Your task to perform on an android device: allow cookies in the chrome app Image 0: 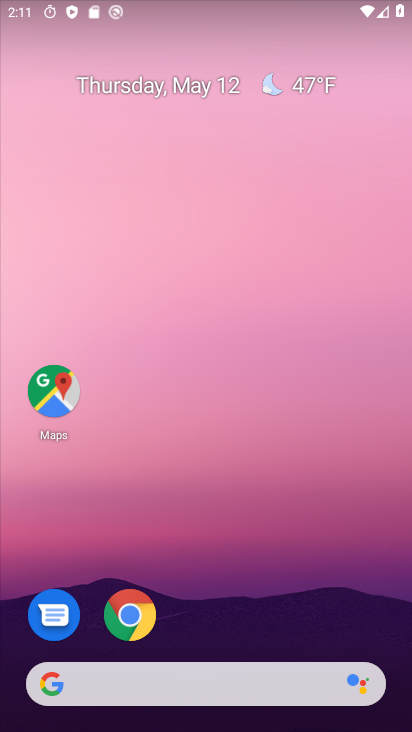
Step 0: click (142, 615)
Your task to perform on an android device: allow cookies in the chrome app Image 1: 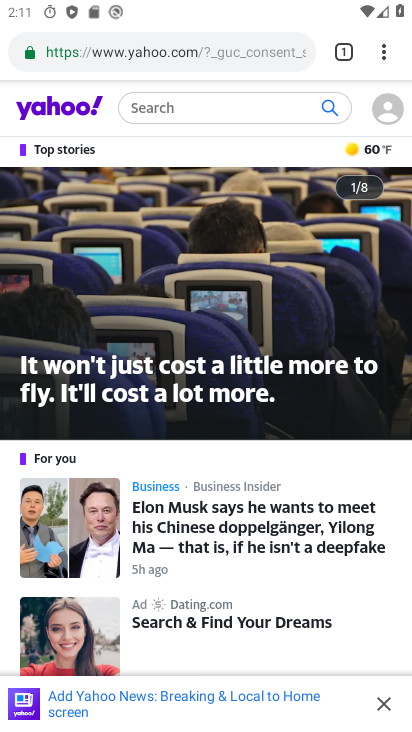
Step 1: click (380, 48)
Your task to perform on an android device: allow cookies in the chrome app Image 2: 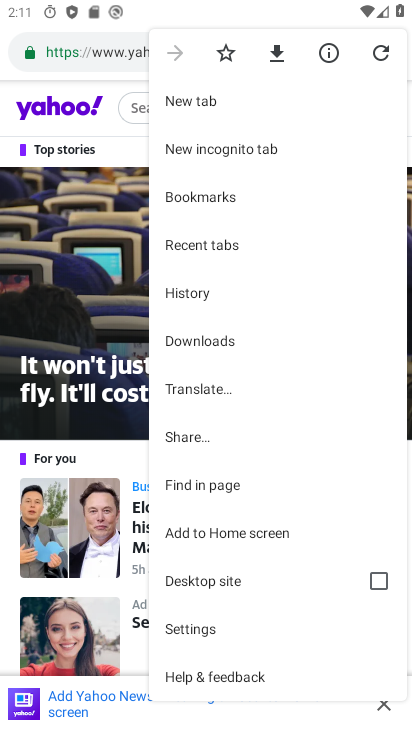
Step 2: click (202, 646)
Your task to perform on an android device: allow cookies in the chrome app Image 3: 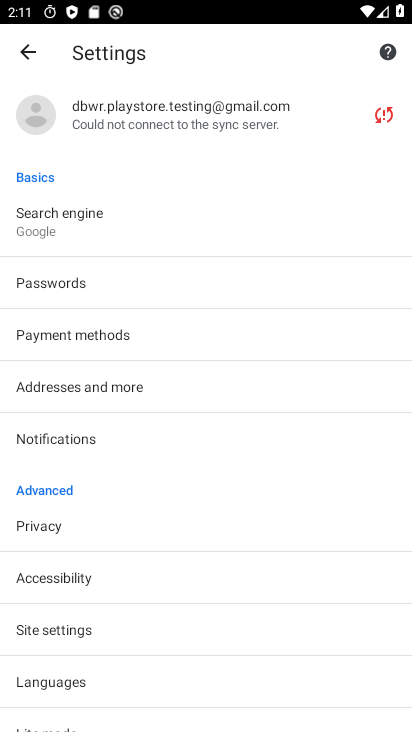
Step 3: click (58, 613)
Your task to perform on an android device: allow cookies in the chrome app Image 4: 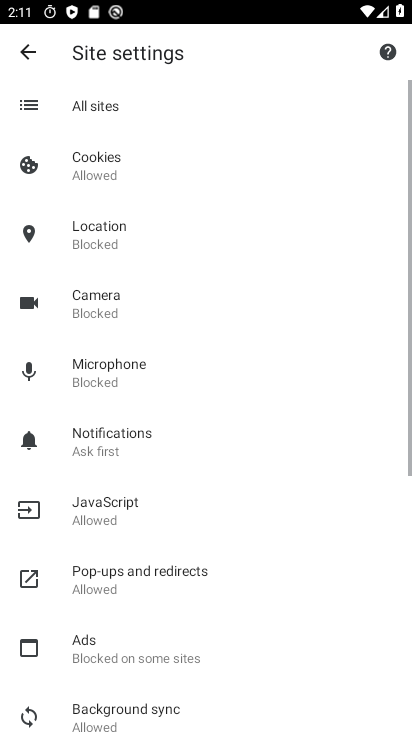
Step 4: click (97, 167)
Your task to perform on an android device: allow cookies in the chrome app Image 5: 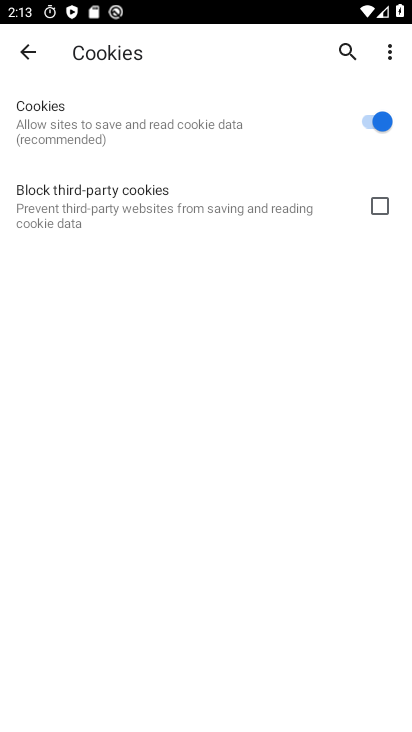
Step 5: task complete